Your task to perform on an android device: Check the news Image 0: 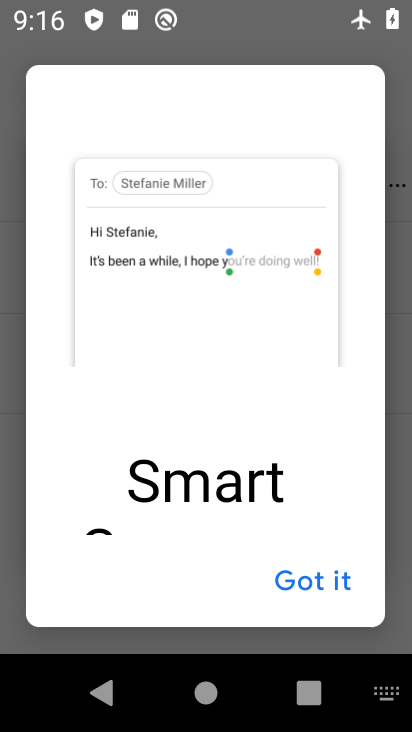
Step 0: press home button
Your task to perform on an android device: Check the news Image 1: 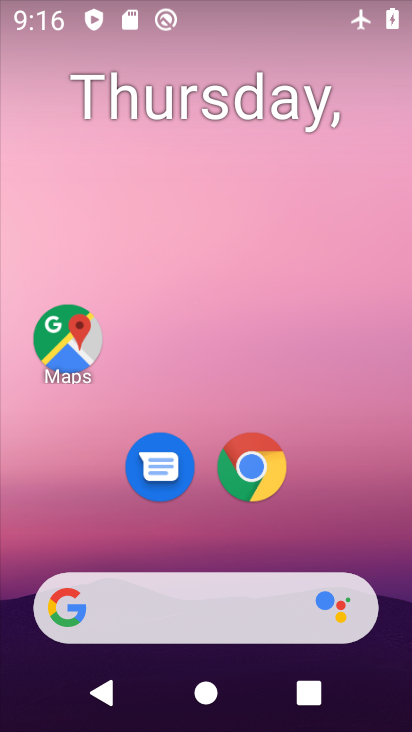
Step 1: drag from (350, 558) to (357, 63)
Your task to perform on an android device: Check the news Image 2: 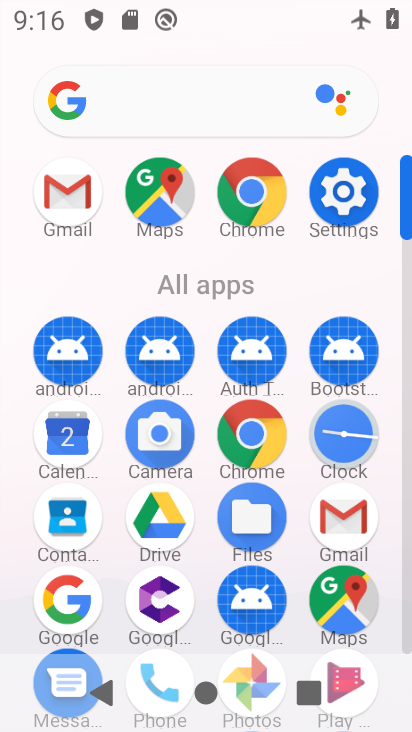
Step 2: click (247, 198)
Your task to perform on an android device: Check the news Image 3: 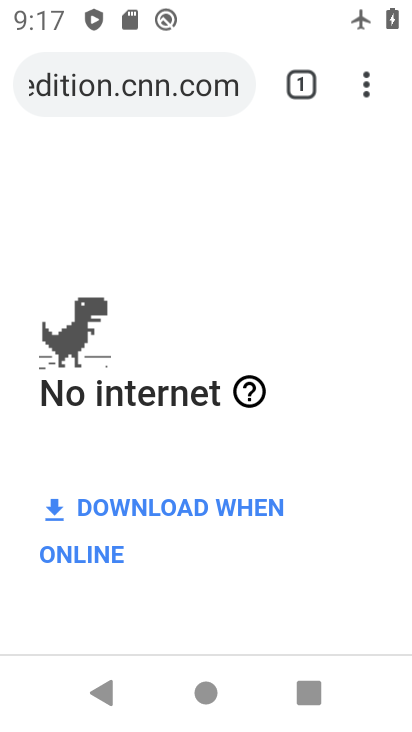
Step 3: task complete